Your task to perform on an android device: toggle show notifications on the lock screen Image 0: 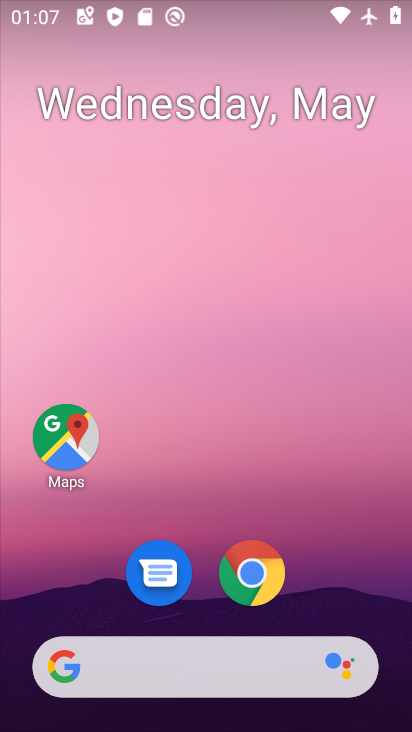
Step 0: drag from (294, 554) to (303, 297)
Your task to perform on an android device: toggle show notifications on the lock screen Image 1: 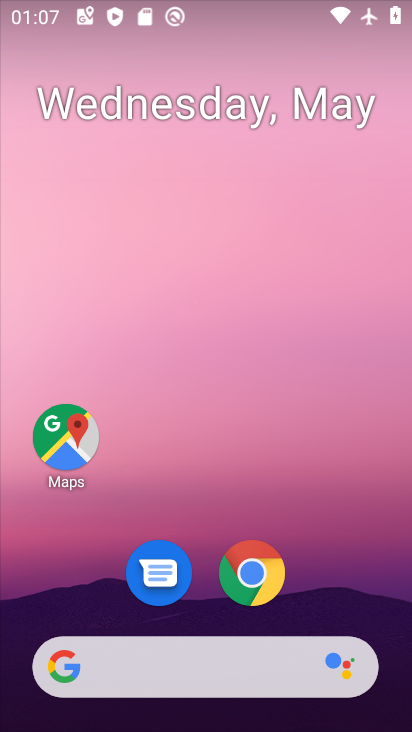
Step 1: drag from (312, 628) to (322, 221)
Your task to perform on an android device: toggle show notifications on the lock screen Image 2: 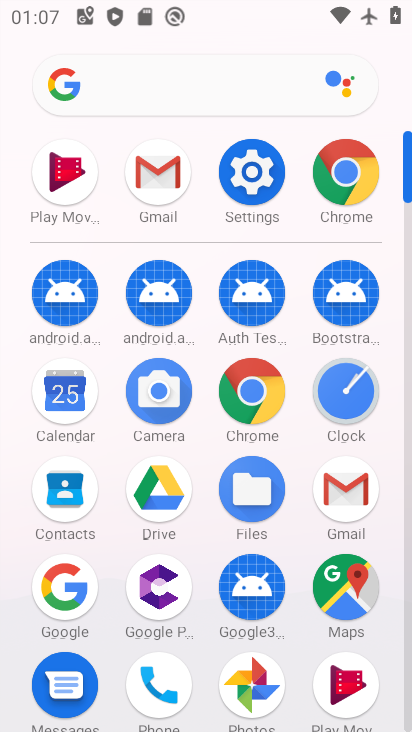
Step 2: click (242, 151)
Your task to perform on an android device: toggle show notifications on the lock screen Image 3: 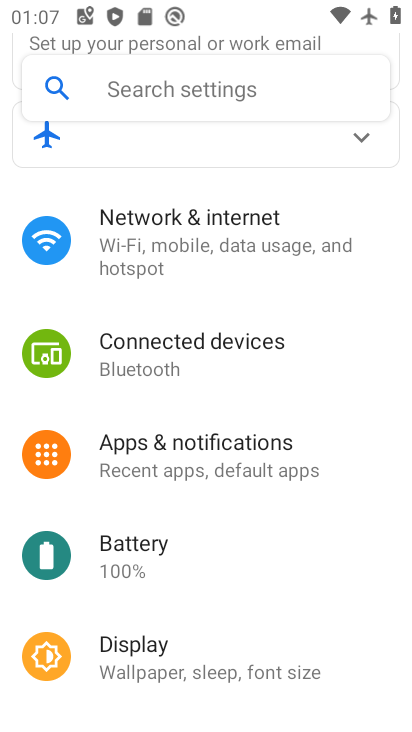
Step 3: click (210, 448)
Your task to perform on an android device: toggle show notifications on the lock screen Image 4: 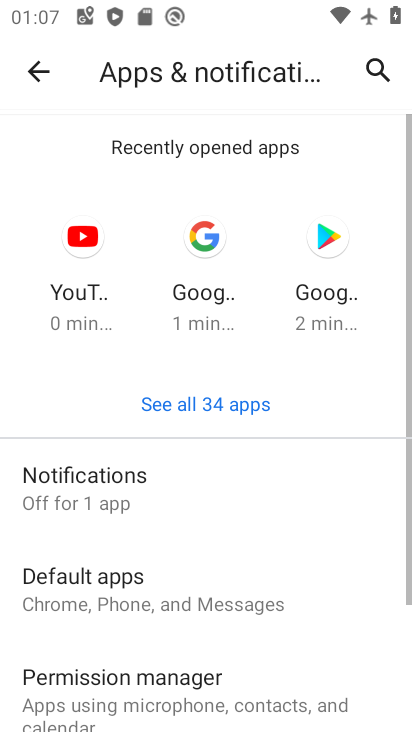
Step 4: click (161, 502)
Your task to perform on an android device: toggle show notifications on the lock screen Image 5: 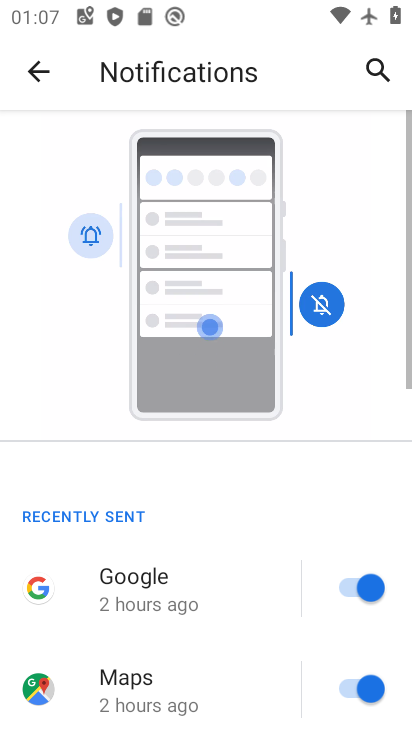
Step 5: drag from (199, 620) to (209, 214)
Your task to perform on an android device: toggle show notifications on the lock screen Image 6: 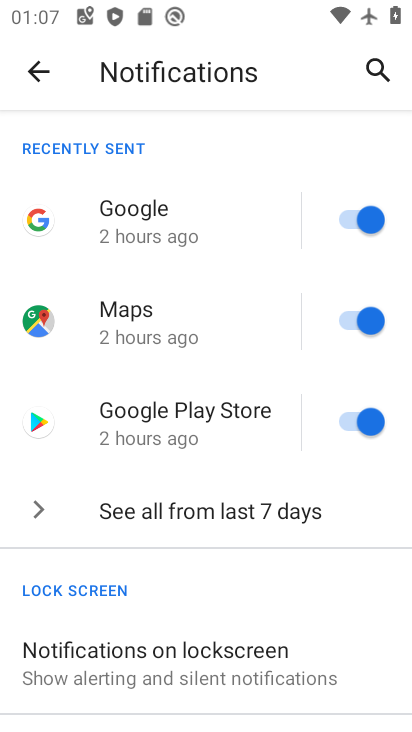
Step 6: click (197, 655)
Your task to perform on an android device: toggle show notifications on the lock screen Image 7: 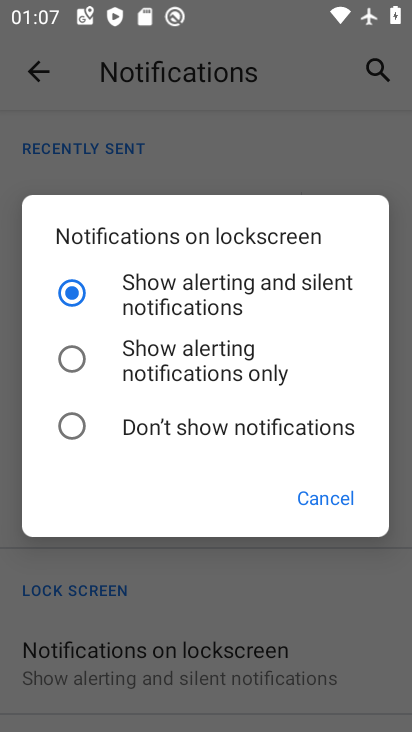
Step 7: click (145, 375)
Your task to perform on an android device: toggle show notifications on the lock screen Image 8: 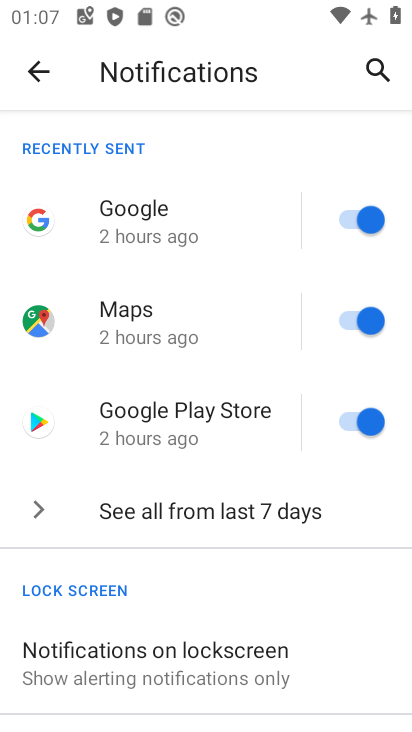
Step 8: task complete